Your task to perform on an android device: delete the emails in spam in the gmail app Image 0: 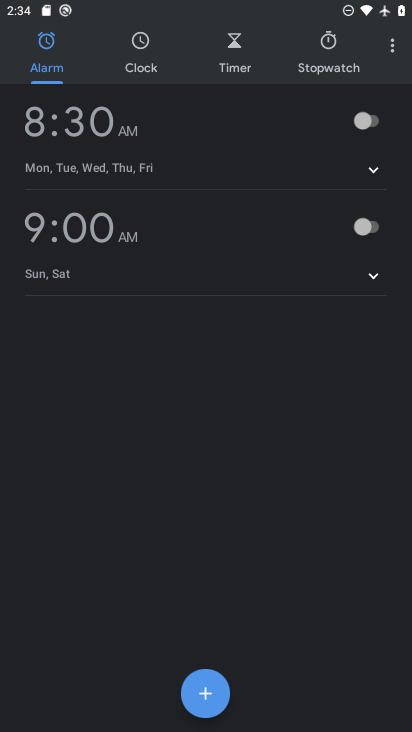
Step 0: press home button
Your task to perform on an android device: delete the emails in spam in the gmail app Image 1: 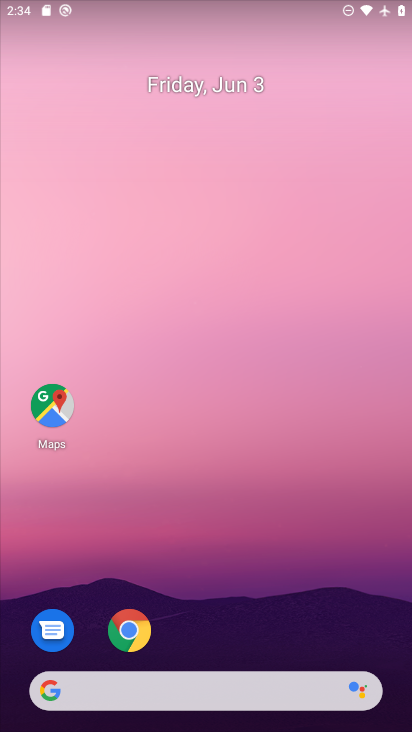
Step 1: drag from (218, 728) to (214, 196)
Your task to perform on an android device: delete the emails in spam in the gmail app Image 2: 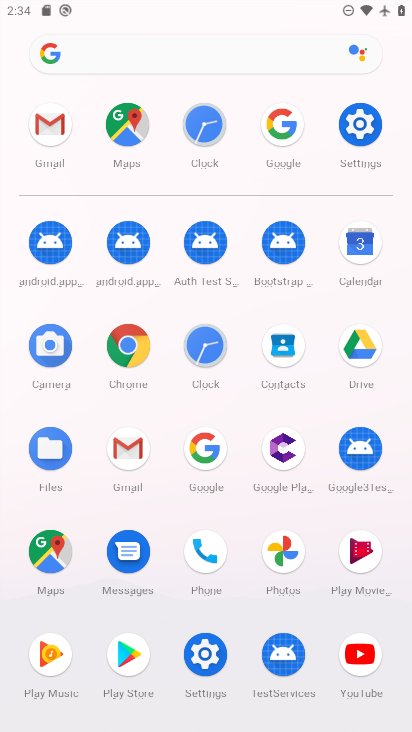
Step 2: click (134, 454)
Your task to perform on an android device: delete the emails in spam in the gmail app Image 3: 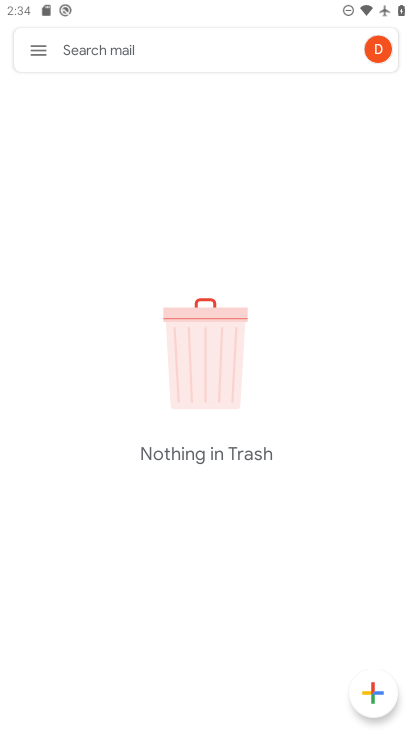
Step 3: click (42, 47)
Your task to perform on an android device: delete the emails in spam in the gmail app Image 4: 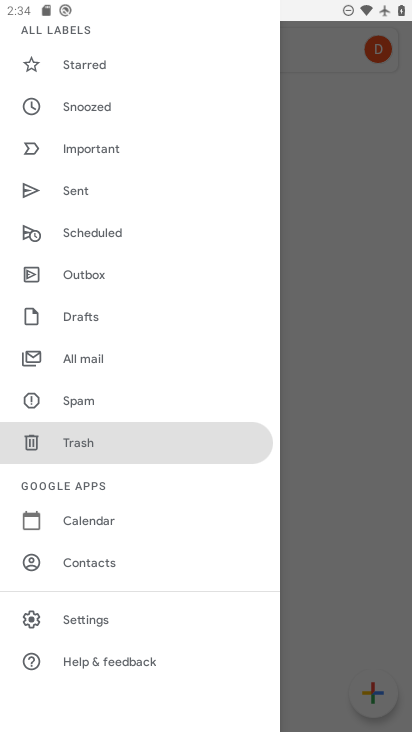
Step 4: click (81, 400)
Your task to perform on an android device: delete the emails in spam in the gmail app Image 5: 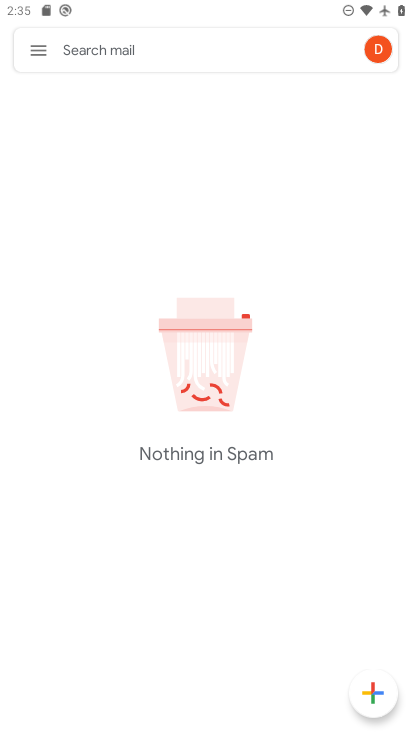
Step 5: task complete